Your task to perform on an android device: toggle improve location accuracy Image 0: 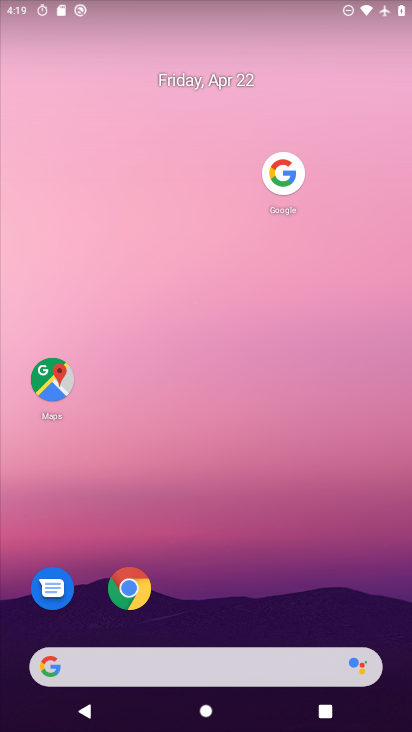
Step 0: drag from (213, 626) to (218, 106)
Your task to perform on an android device: toggle improve location accuracy Image 1: 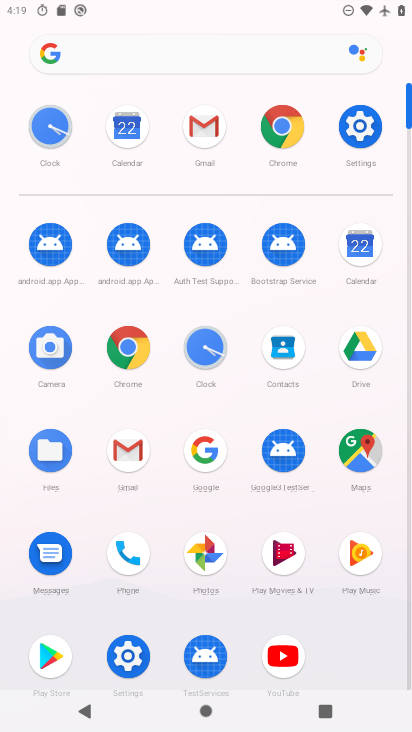
Step 1: click (359, 112)
Your task to perform on an android device: toggle improve location accuracy Image 2: 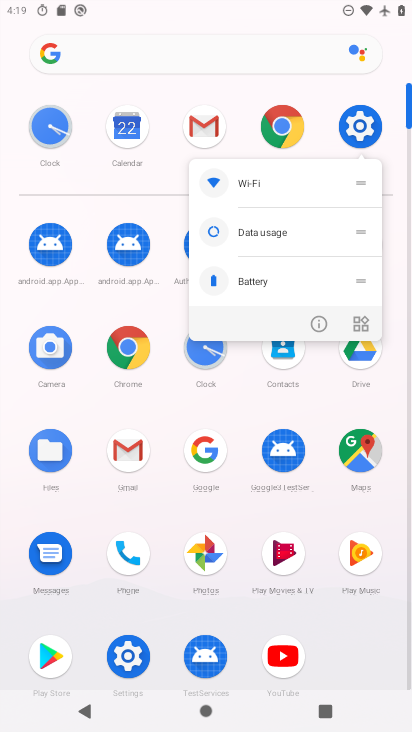
Step 2: click (355, 124)
Your task to perform on an android device: toggle improve location accuracy Image 3: 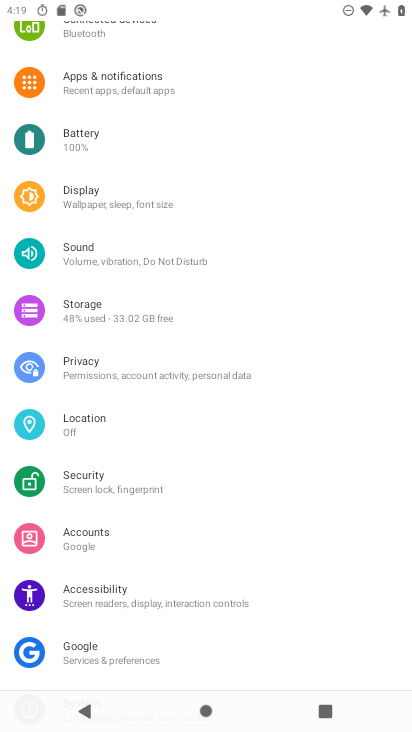
Step 3: click (80, 413)
Your task to perform on an android device: toggle improve location accuracy Image 4: 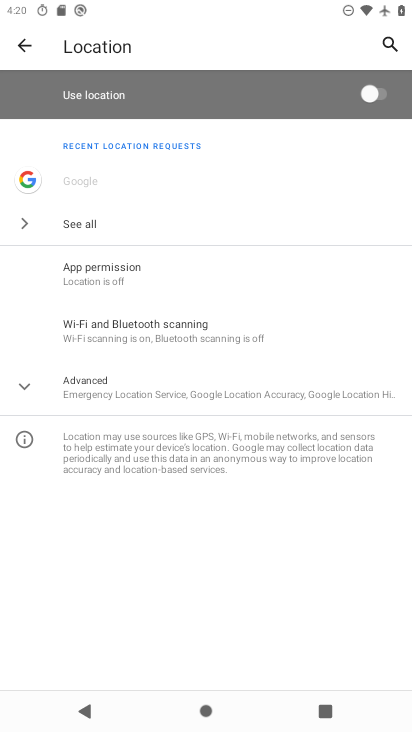
Step 4: click (128, 372)
Your task to perform on an android device: toggle improve location accuracy Image 5: 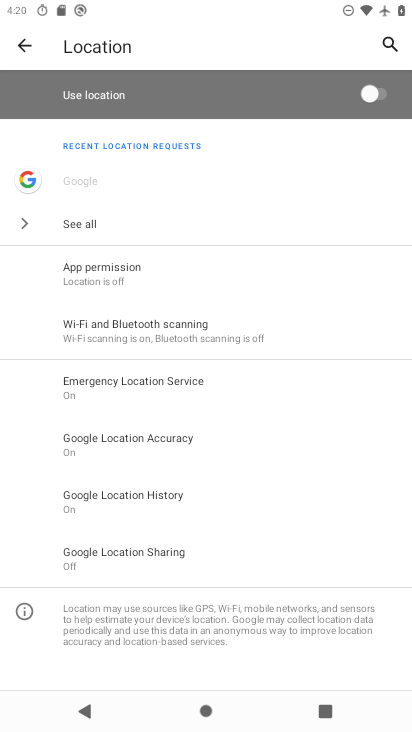
Step 5: click (170, 437)
Your task to perform on an android device: toggle improve location accuracy Image 6: 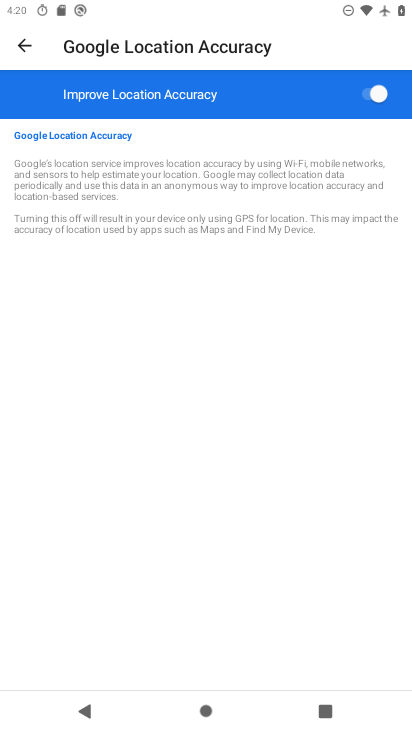
Step 6: click (366, 100)
Your task to perform on an android device: toggle improve location accuracy Image 7: 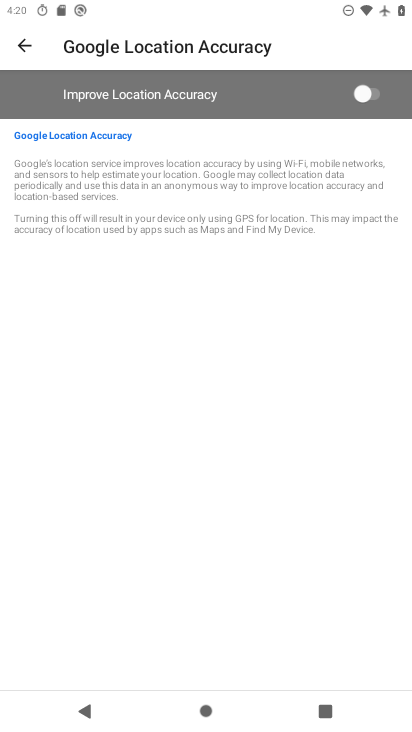
Step 7: task complete